Your task to perform on an android device: Search for pizza restaurants on Maps Image 0: 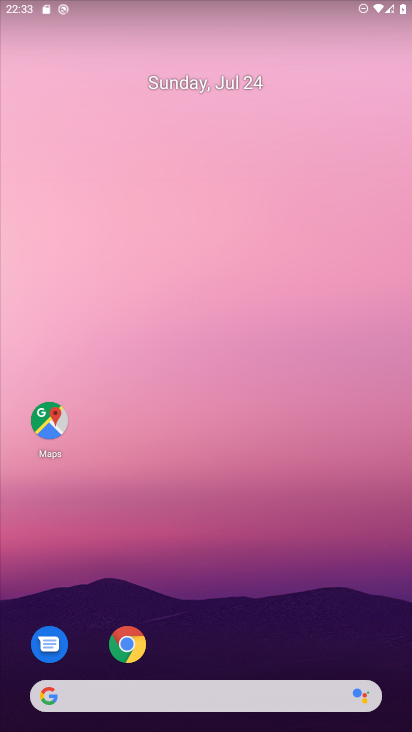
Step 0: click (54, 419)
Your task to perform on an android device: Search for pizza restaurants on Maps Image 1: 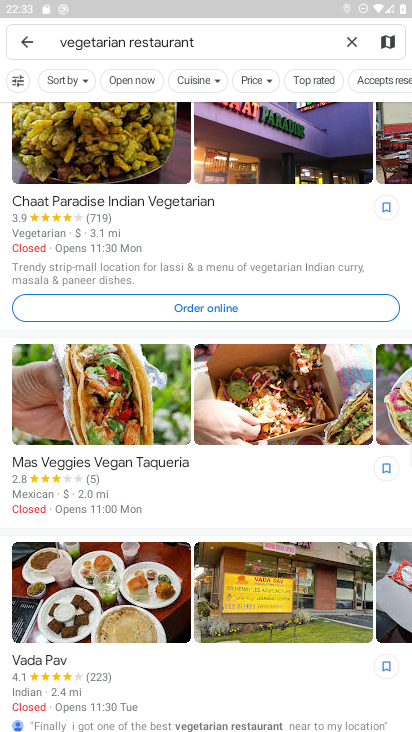
Step 1: click (355, 32)
Your task to perform on an android device: Search for pizza restaurants on Maps Image 2: 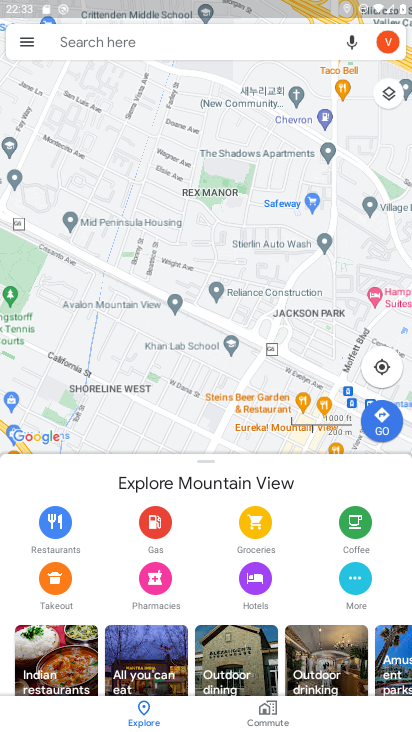
Step 2: click (349, 42)
Your task to perform on an android device: Search for pizza restaurants on Maps Image 3: 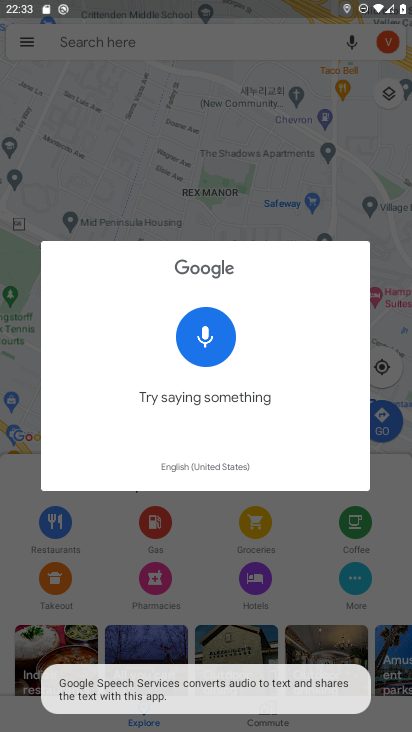
Step 3: click (104, 38)
Your task to perform on an android device: Search for pizza restaurants on Maps Image 4: 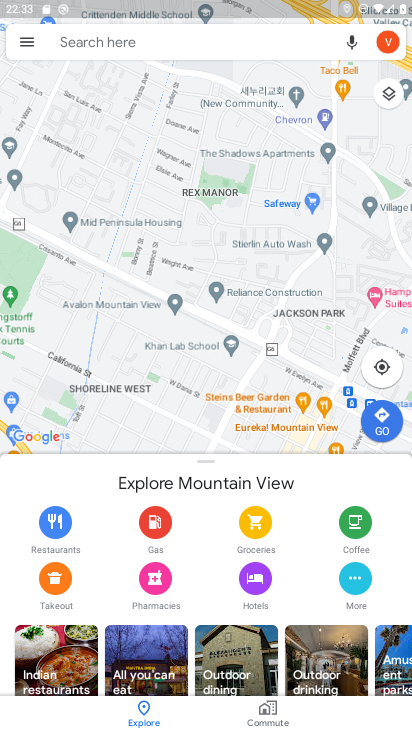
Step 4: click (99, 40)
Your task to perform on an android device: Search for pizza restaurants on Maps Image 5: 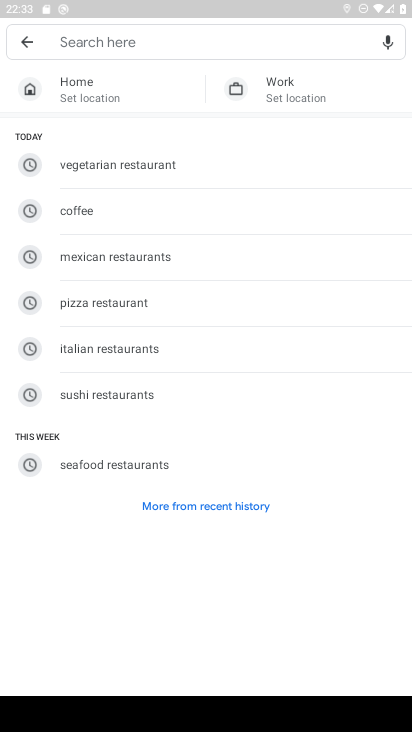
Step 5: type "pizza restaurants"
Your task to perform on an android device: Search for pizza restaurants on Maps Image 6: 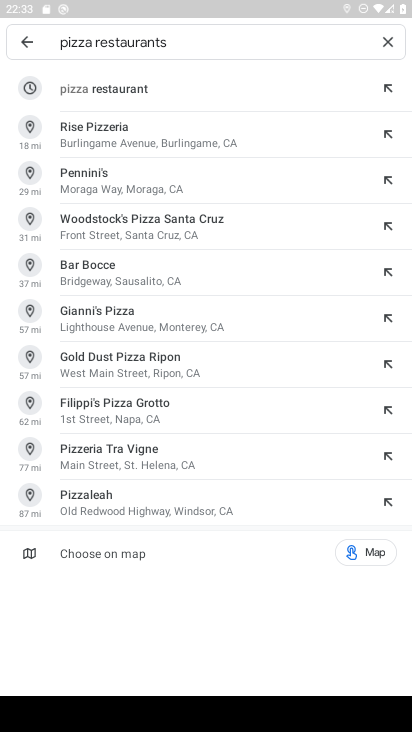
Step 6: click (108, 95)
Your task to perform on an android device: Search for pizza restaurants on Maps Image 7: 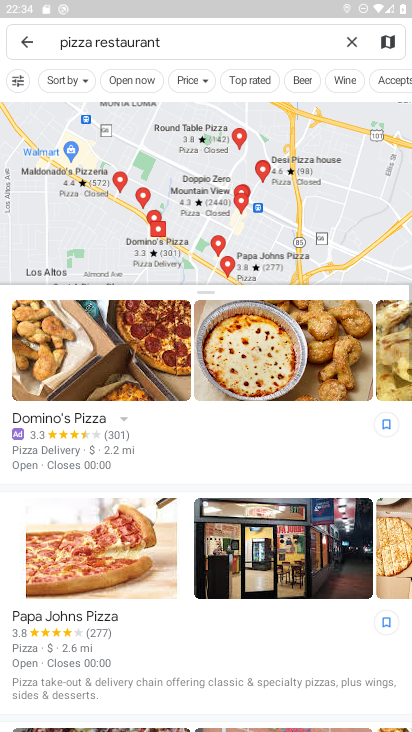
Step 7: task complete